Your task to perform on an android device: Go to notification settings Image 0: 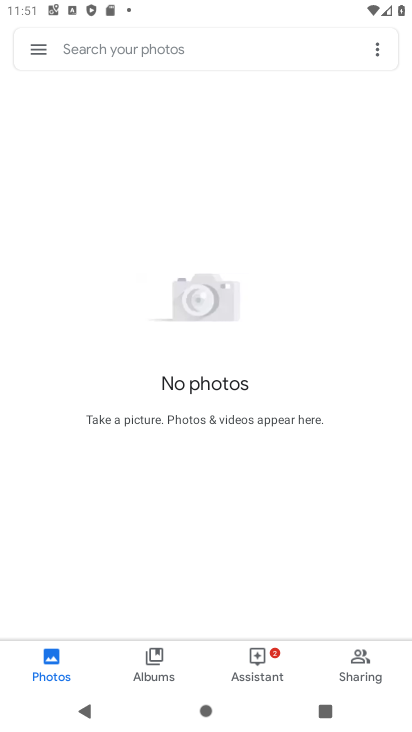
Step 0: press home button
Your task to perform on an android device: Go to notification settings Image 1: 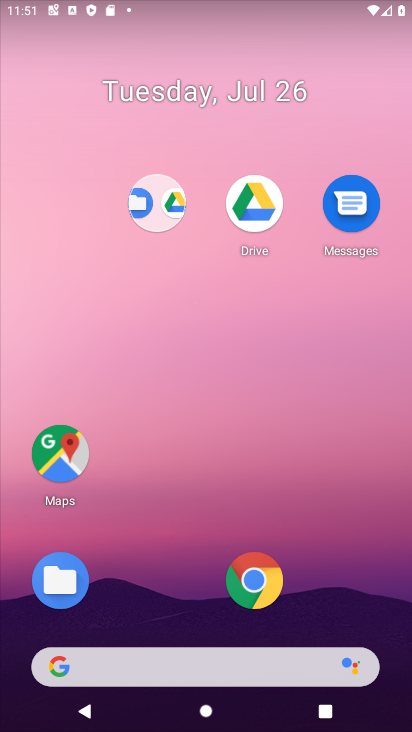
Step 1: drag from (152, 603) to (172, 272)
Your task to perform on an android device: Go to notification settings Image 2: 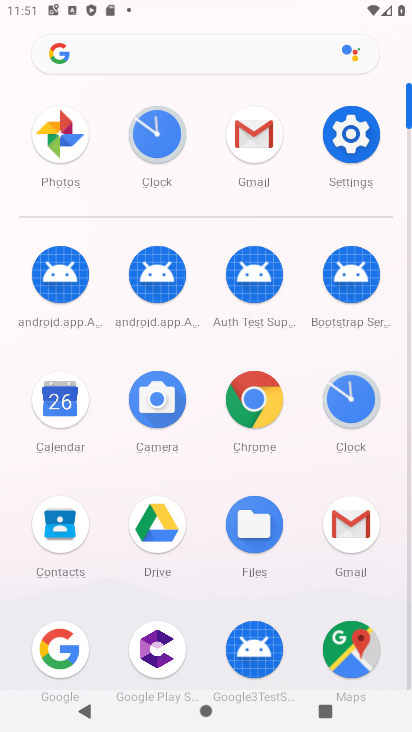
Step 2: click (350, 120)
Your task to perform on an android device: Go to notification settings Image 3: 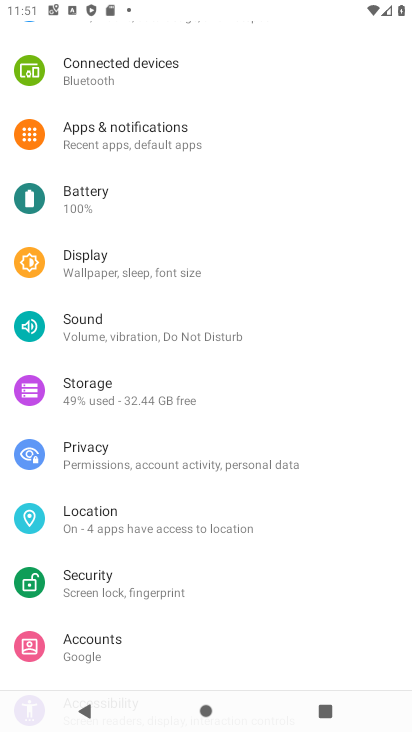
Step 3: click (115, 158)
Your task to perform on an android device: Go to notification settings Image 4: 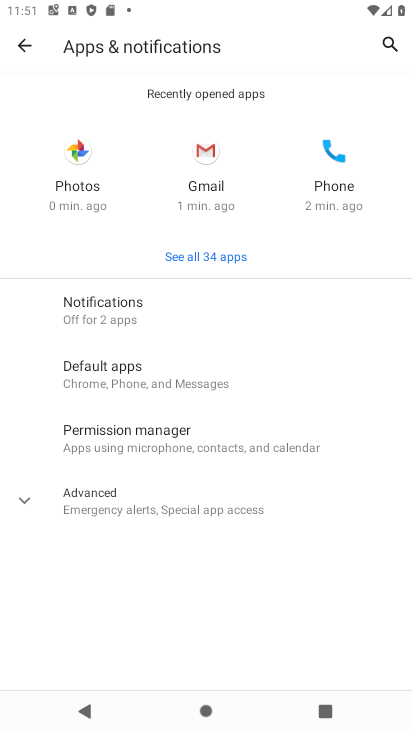
Step 4: task complete